Your task to perform on an android device: open app "Mercado Libre" (install if not already installed) Image 0: 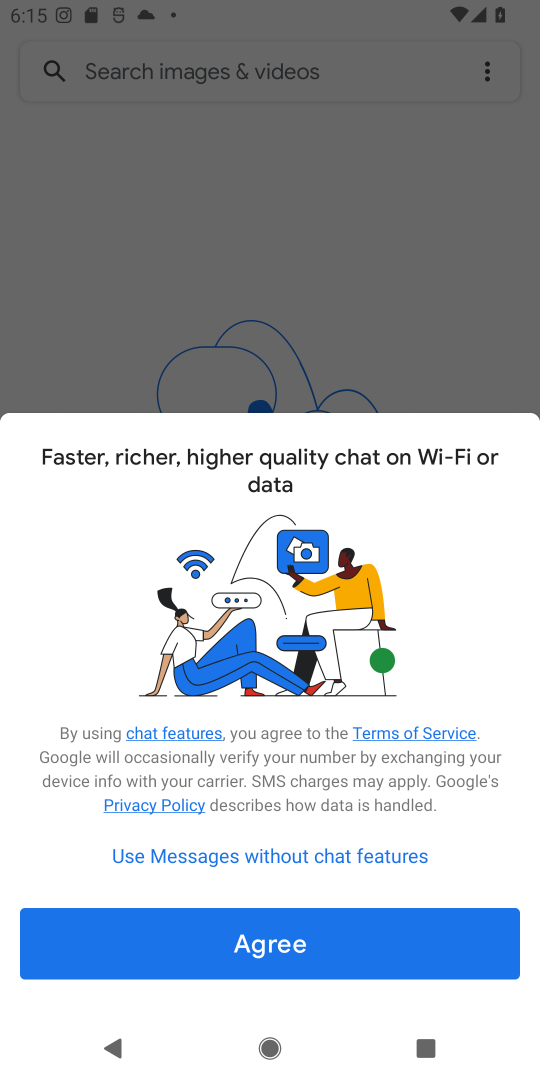
Step 0: press home button
Your task to perform on an android device: open app "Mercado Libre" (install if not already installed) Image 1: 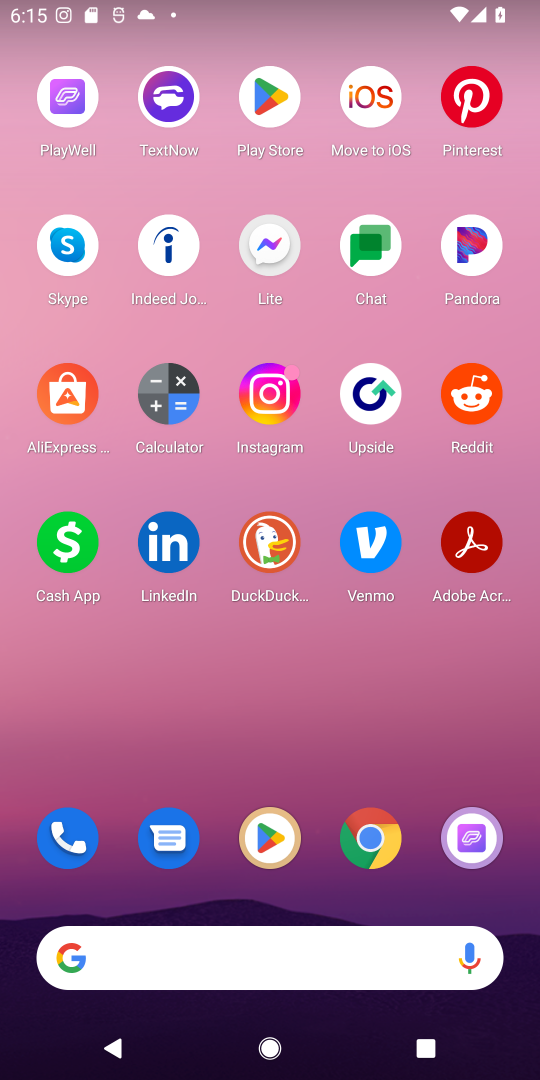
Step 1: click (270, 851)
Your task to perform on an android device: open app "Mercado Libre" (install if not already installed) Image 2: 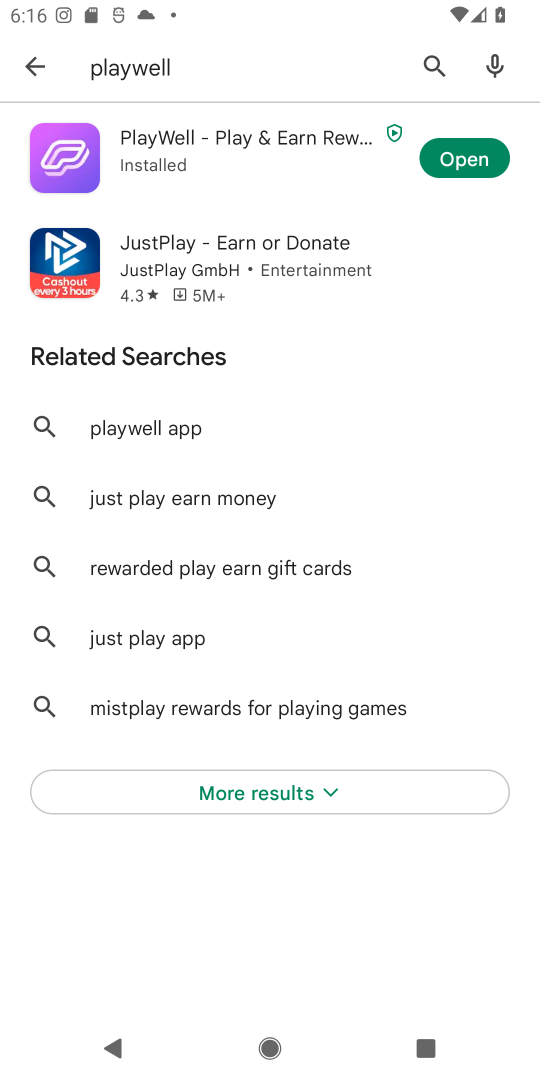
Step 2: click (430, 62)
Your task to perform on an android device: open app "Mercado Libre" (install if not already installed) Image 3: 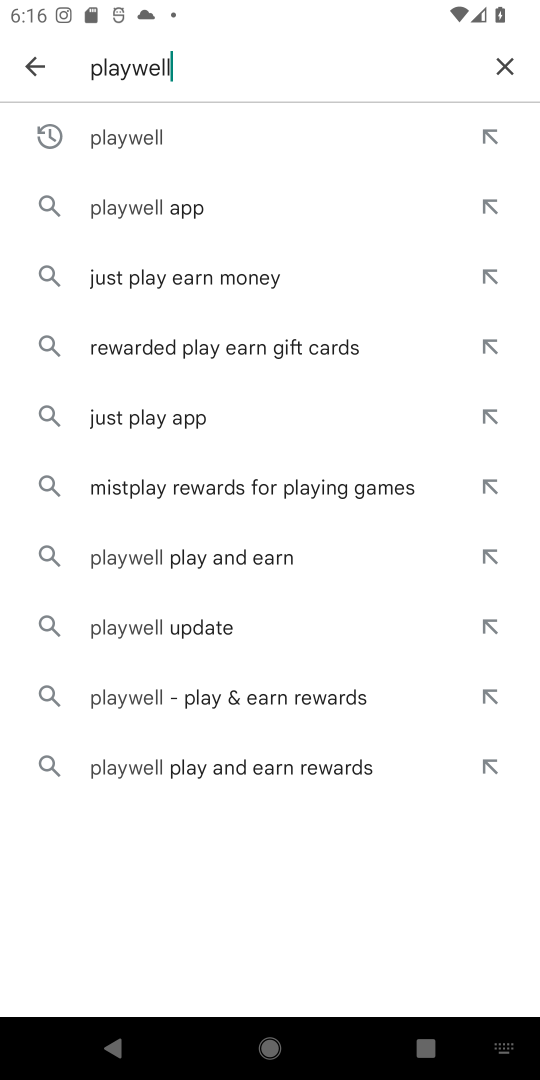
Step 3: click (500, 59)
Your task to perform on an android device: open app "Mercado Libre" (install if not already installed) Image 4: 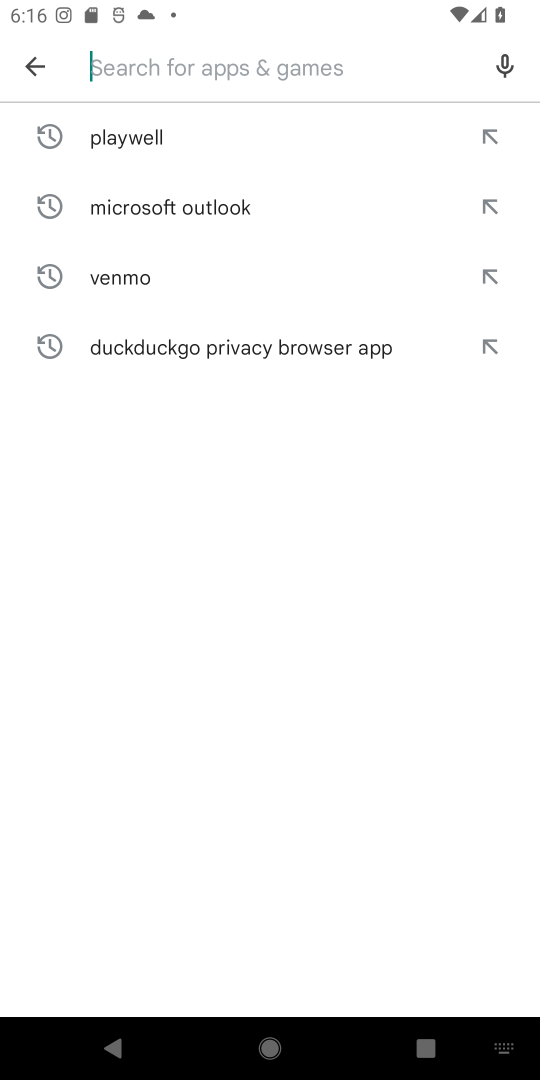
Step 4: type "Mercado Libre"
Your task to perform on an android device: open app "Mercado Libre" (install if not already installed) Image 5: 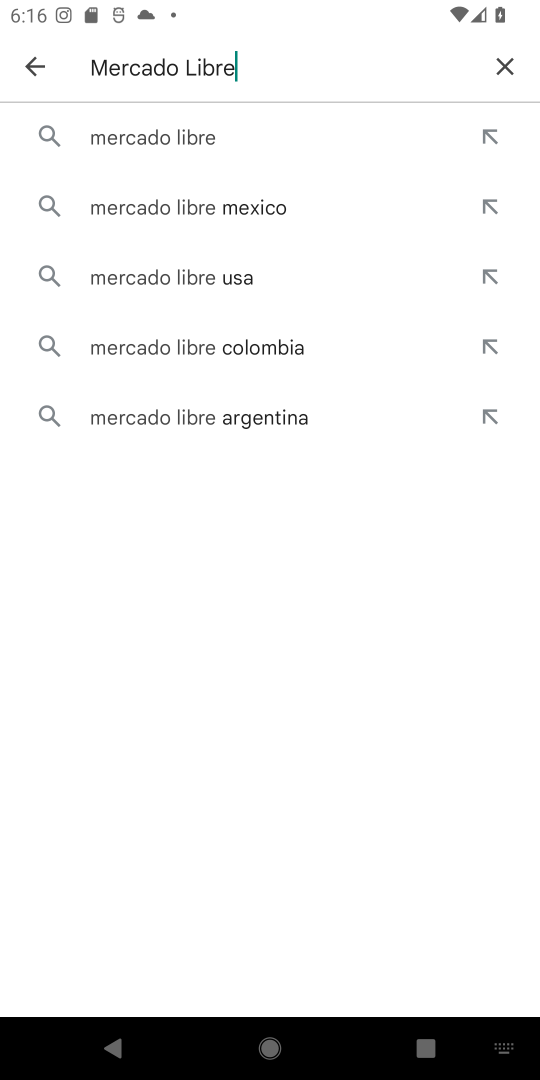
Step 5: click (175, 139)
Your task to perform on an android device: open app "Mercado Libre" (install if not already installed) Image 6: 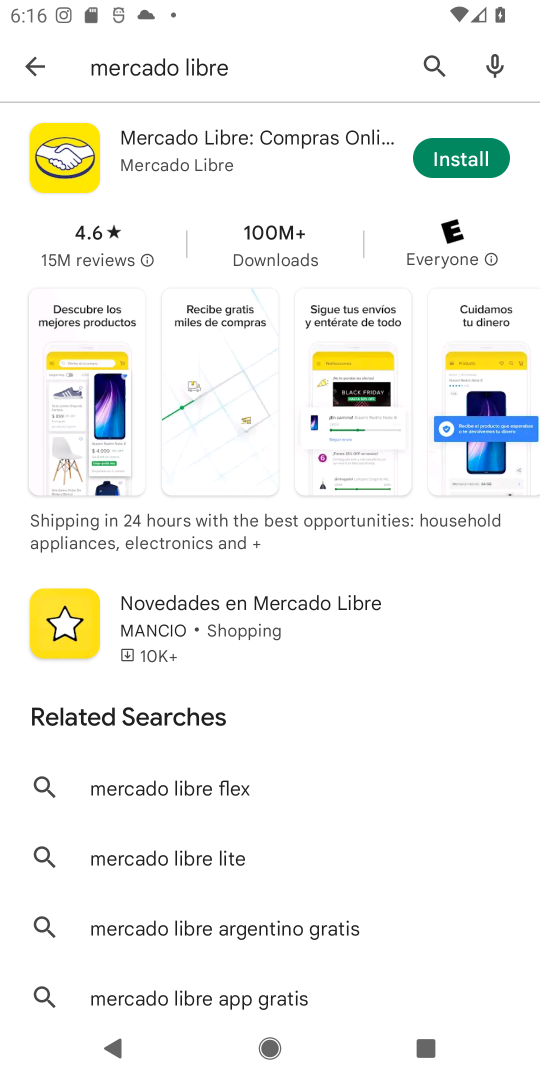
Step 6: click (460, 167)
Your task to perform on an android device: open app "Mercado Libre" (install if not already installed) Image 7: 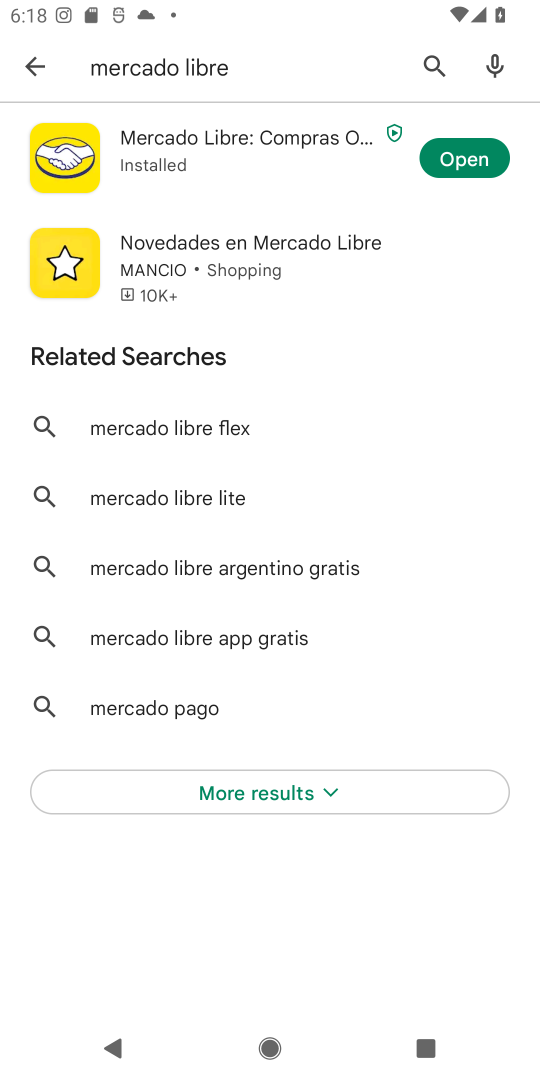
Step 7: click (460, 167)
Your task to perform on an android device: open app "Mercado Libre" (install if not already installed) Image 8: 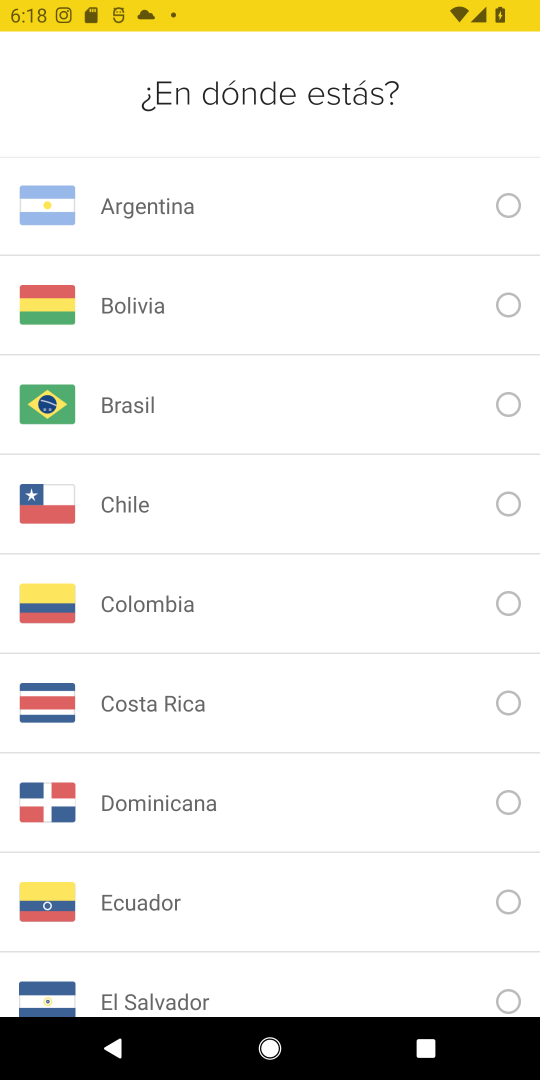
Step 8: task complete